Your task to perform on an android device: Go to accessibility settings Image 0: 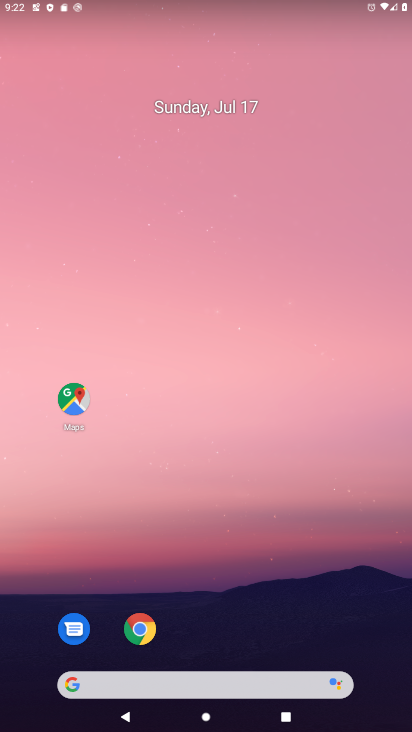
Step 0: drag from (221, 624) to (239, 59)
Your task to perform on an android device: Go to accessibility settings Image 1: 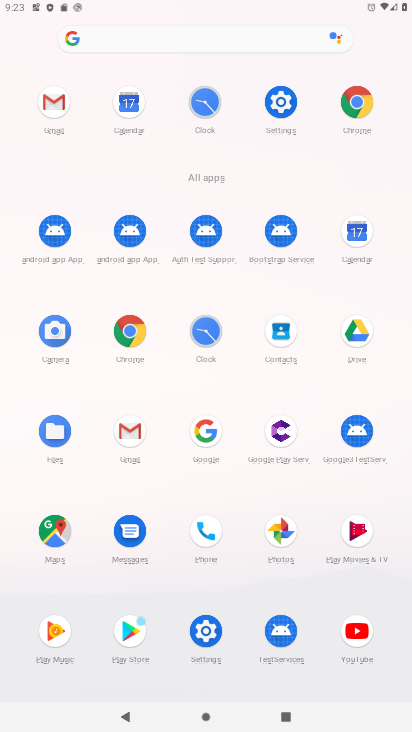
Step 1: click (209, 647)
Your task to perform on an android device: Go to accessibility settings Image 2: 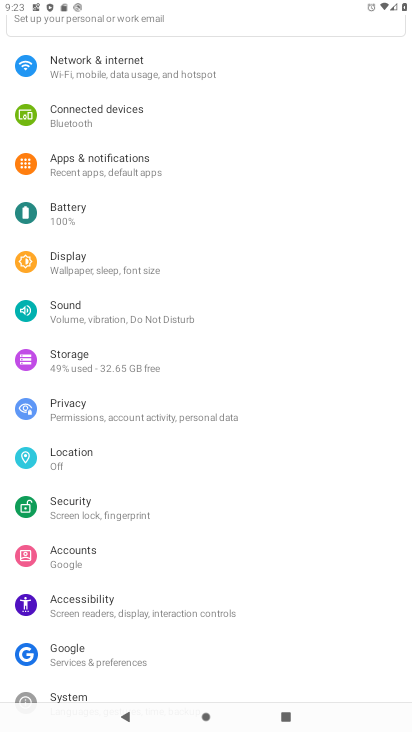
Step 2: click (97, 605)
Your task to perform on an android device: Go to accessibility settings Image 3: 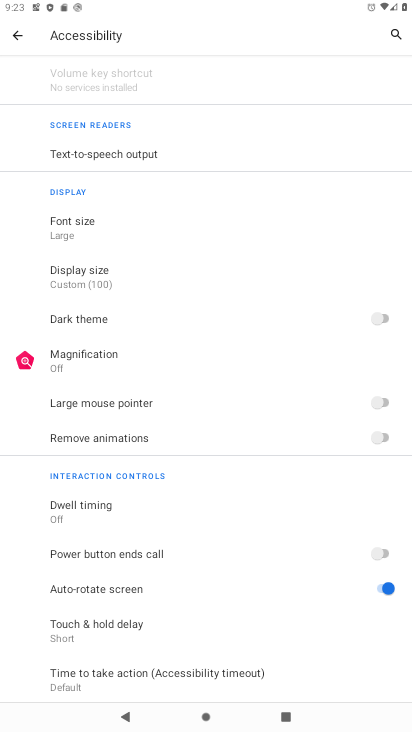
Step 3: task complete